Your task to perform on an android device: Open maps Image 0: 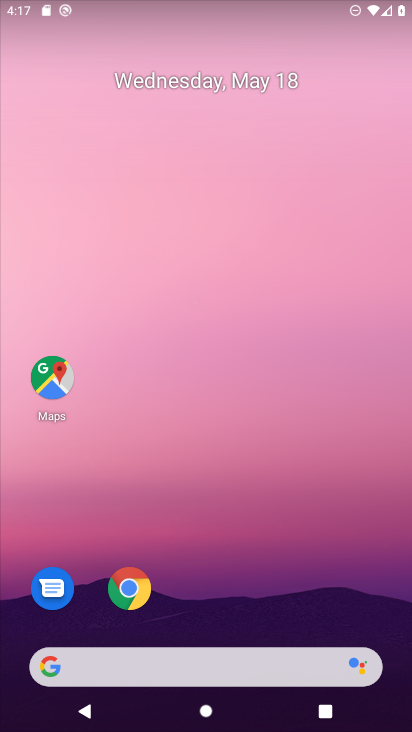
Step 0: drag from (251, 576) to (257, 147)
Your task to perform on an android device: Open maps Image 1: 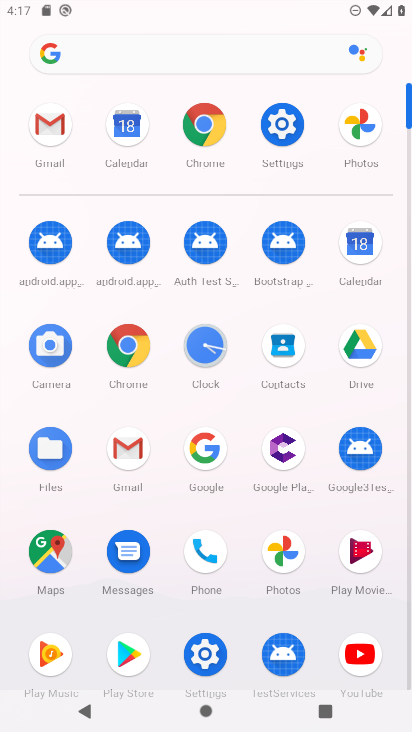
Step 1: click (46, 548)
Your task to perform on an android device: Open maps Image 2: 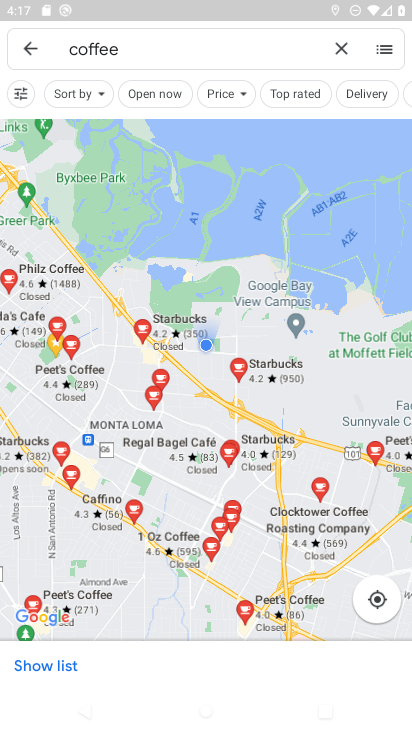
Step 2: task complete